Your task to perform on an android device: Open Maps and search for coffee Image 0: 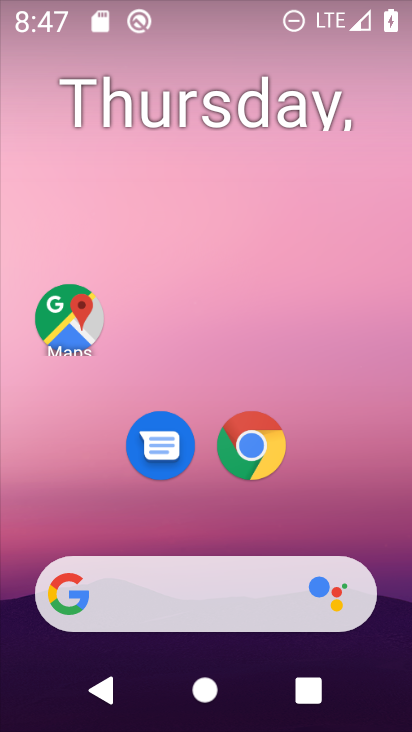
Step 0: click (392, 620)
Your task to perform on an android device: Open Maps and search for coffee Image 1: 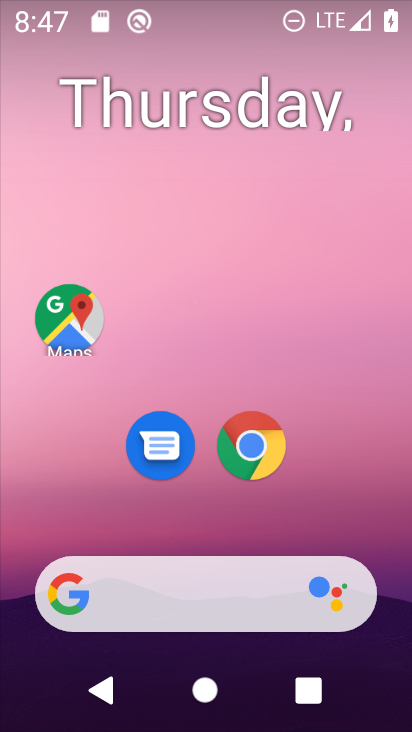
Step 1: drag from (406, 504) to (406, 349)
Your task to perform on an android device: Open Maps and search for coffee Image 2: 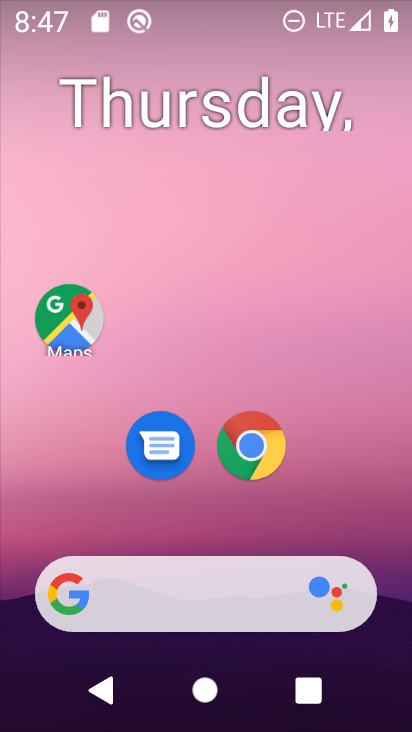
Step 2: drag from (361, 90) to (328, 22)
Your task to perform on an android device: Open Maps and search for coffee Image 3: 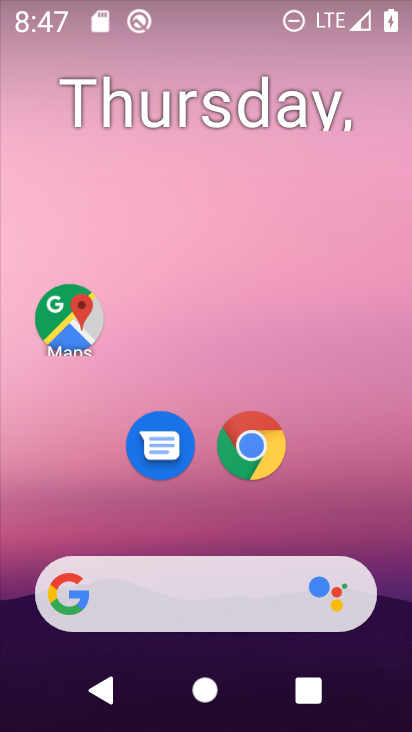
Step 3: drag from (378, 535) to (363, 5)
Your task to perform on an android device: Open Maps and search for coffee Image 4: 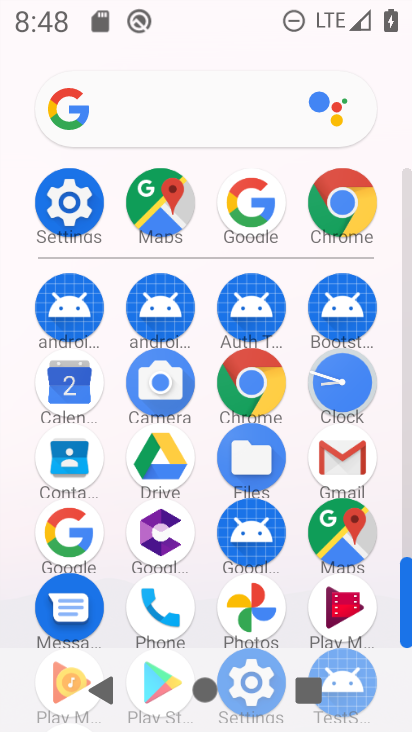
Step 4: click (337, 530)
Your task to perform on an android device: Open Maps and search for coffee Image 5: 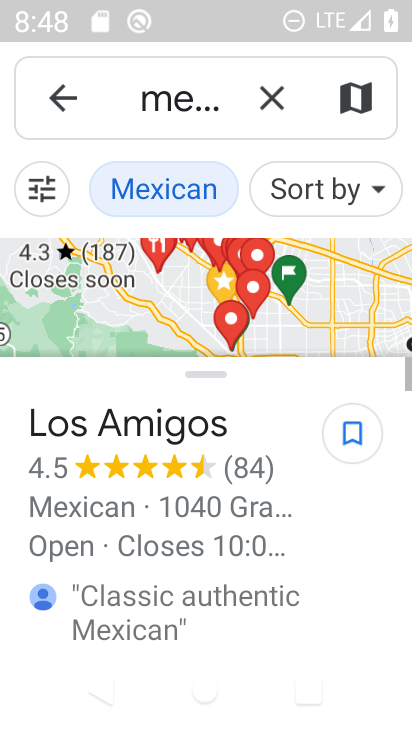
Step 5: click (266, 91)
Your task to perform on an android device: Open Maps and search for coffee Image 6: 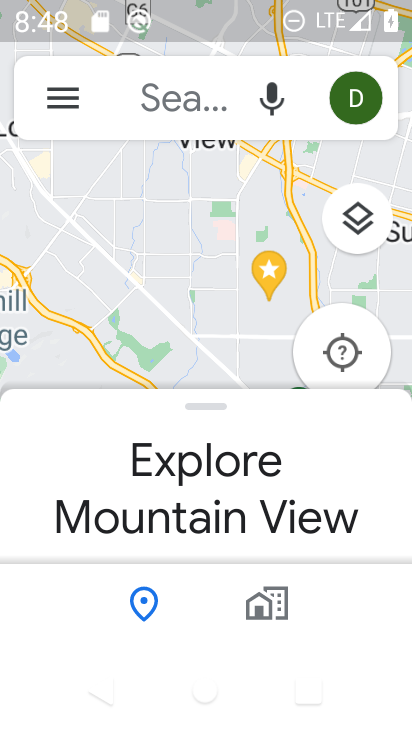
Step 6: click (147, 95)
Your task to perform on an android device: Open Maps and search for coffee Image 7: 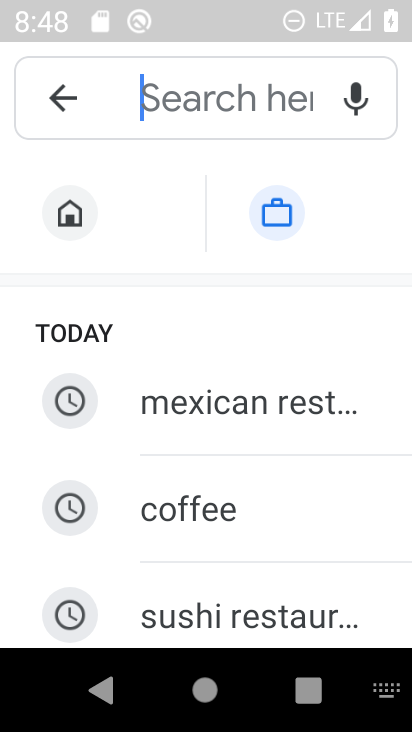
Step 7: click (210, 529)
Your task to perform on an android device: Open Maps and search for coffee Image 8: 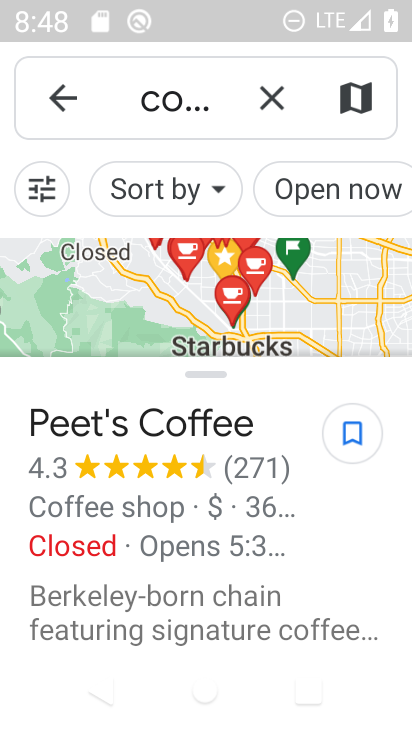
Step 8: task complete